Your task to perform on an android device: turn off priority inbox in the gmail app Image 0: 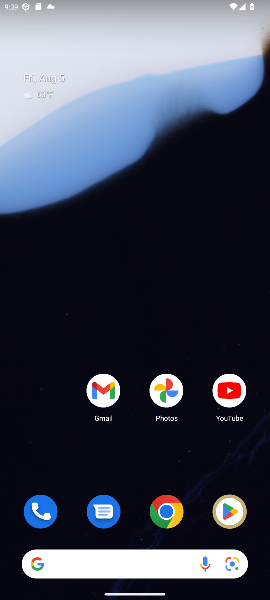
Step 0: drag from (139, 577) to (129, 273)
Your task to perform on an android device: turn off priority inbox in the gmail app Image 1: 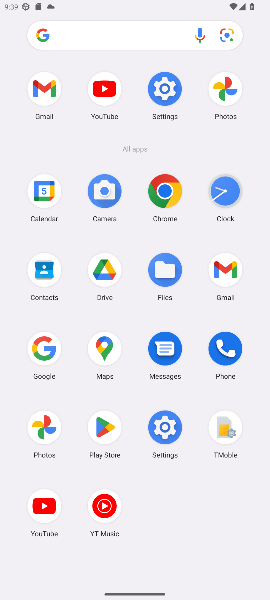
Step 1: click (44, 88)
Your task to perform on an android device: turn off priority inbox in the gmail app Image 2: 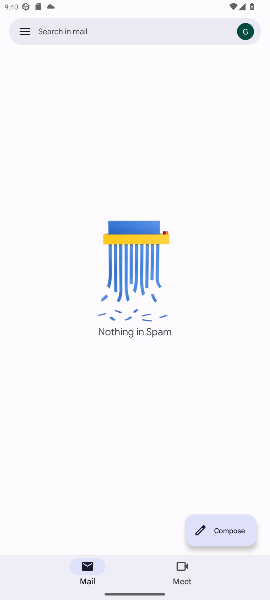
Step 2: click (22, 34)
Your task to perform on an android device: turn off priority inbox in the gmail app Image 3: 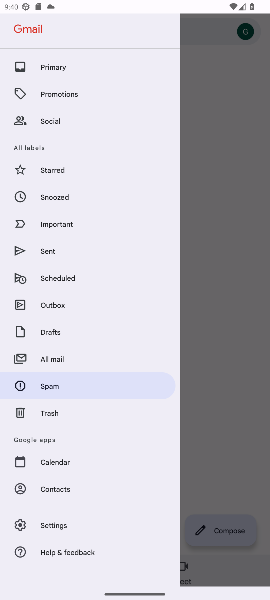
Step 3: click (54, 527)
Your task to perform on an android device: turn off priority inbox in the gmail app Image 4: 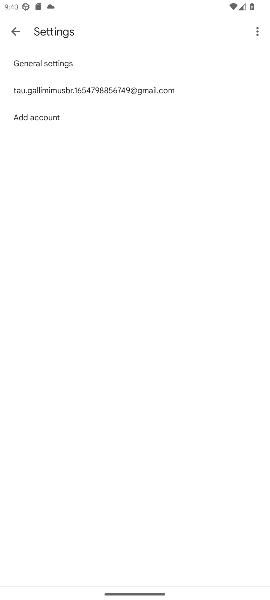
Step 4: click (86, 89)
Your task to perform on an android device: turn off priority inbox in the gmail app Image 5: 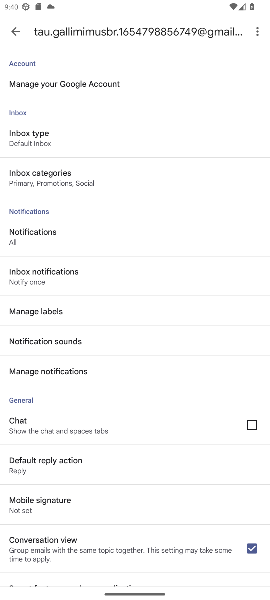
Step 5: task complete